Your task to perform on an android device: turn off notifications settings in the gmail app Image 0: 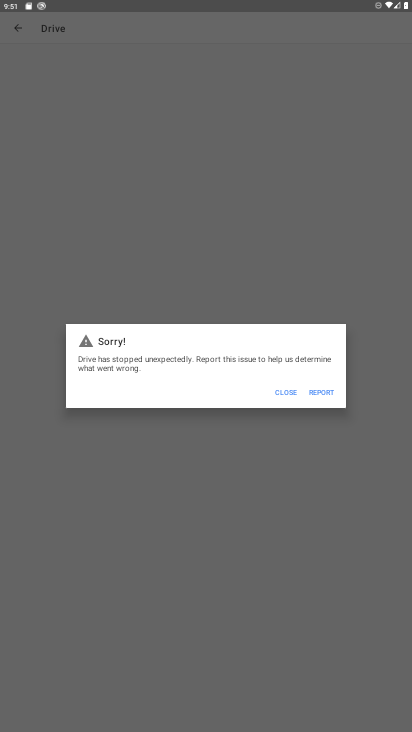
Step 0: press home button
Your task to perform on an android device: turn off notifications settings in the gmail app Image 1: 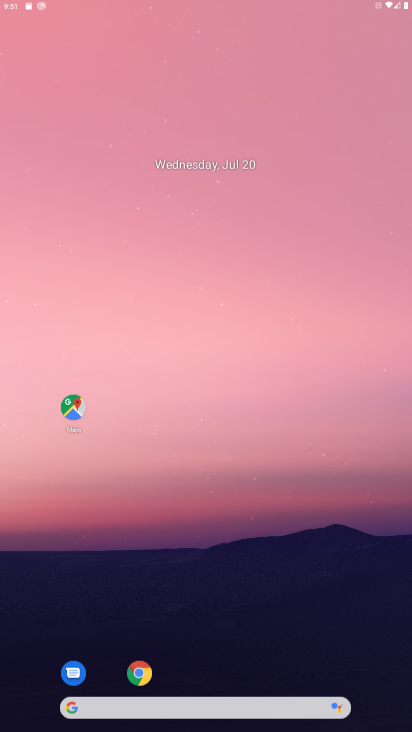
Step 1: drag from (245, 599) to (319, 0)
Your task to perform on an android device: turn off notifications settings in the gmail app Image 2: 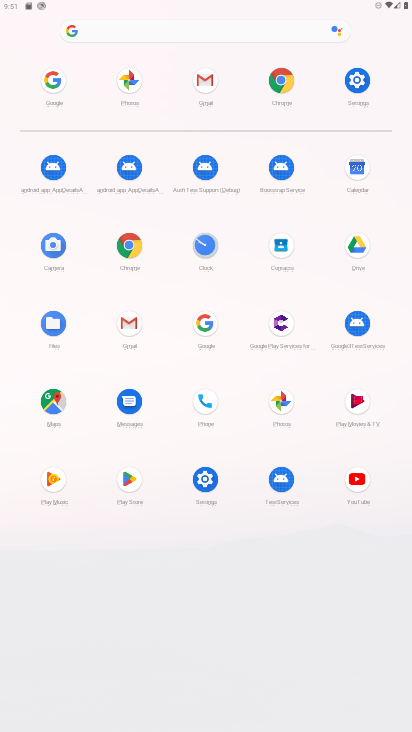
Step 2: click (129, 322)
Your task to perform on an android device: turn off notifications settings in the gmail app Image 3: 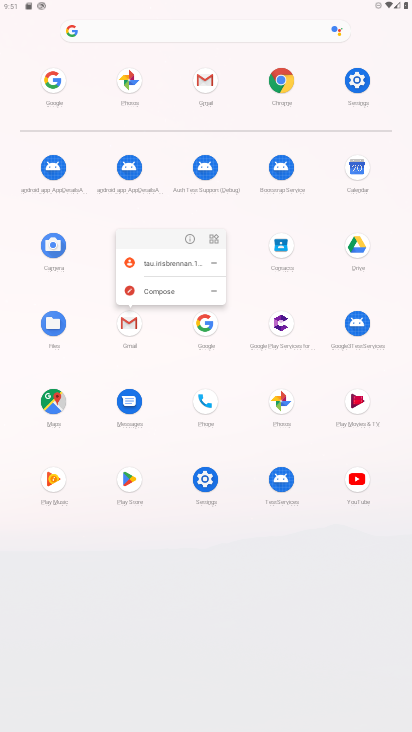
Step 3: click (184, 233)
Your task to perform on an android device: turn off notifications settings in the gmail app Image 4: 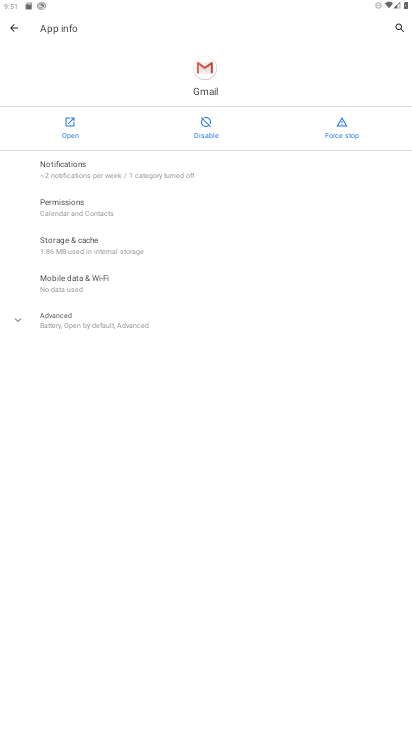
Step 4: click (62, 123)
Your task to perform on an android device: turn off notifications settings in the gmail app Image 5: 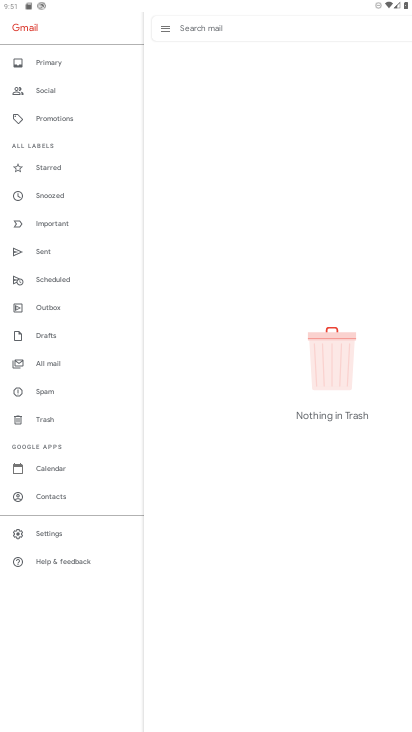
Step 5: click (45, 525)
Your task to perform on an android device: turn off notifications settings in the gmail app Image 6: 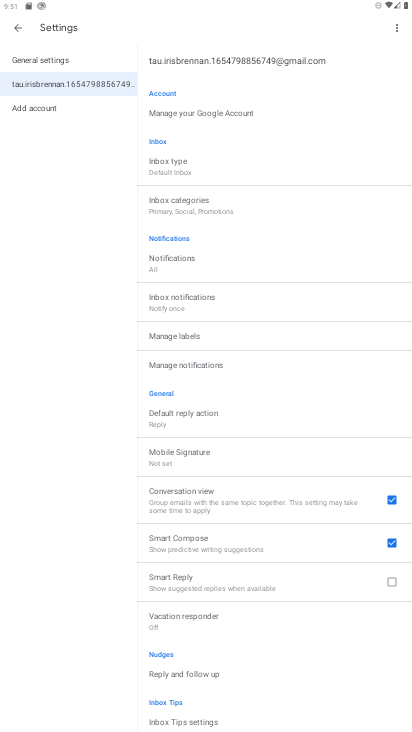
Step 6: click (204, 364)
Your task to perform on an android device: turn off notifications settings in the gmail app Image 7: 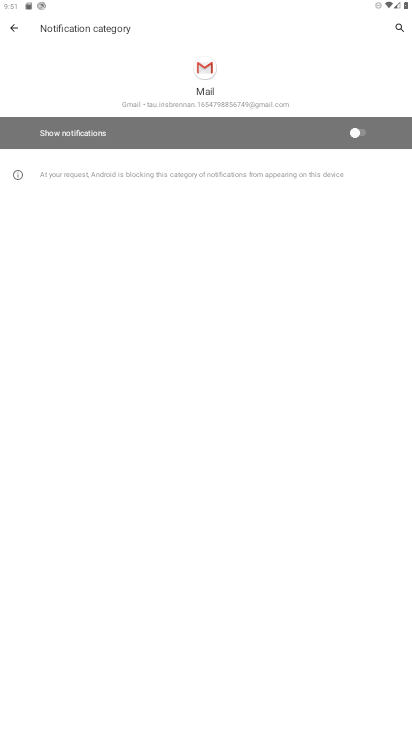
Step 7: task complete